Your task to perform on an android device: What's on my calendar today? Image 0: 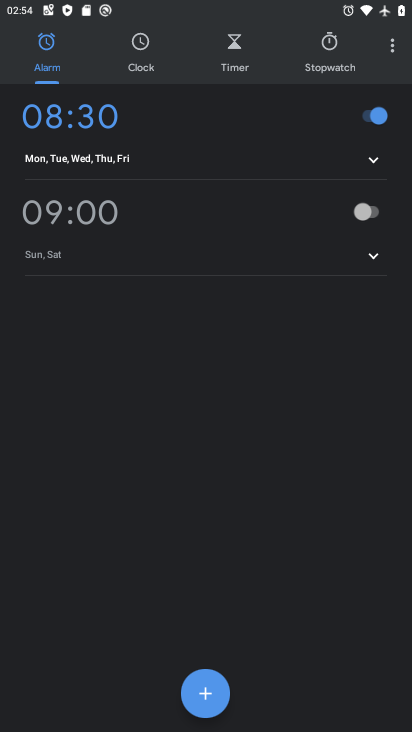
Step 0: press home button
Your task to perform on an android device: What's on my calendar today? Image 1: 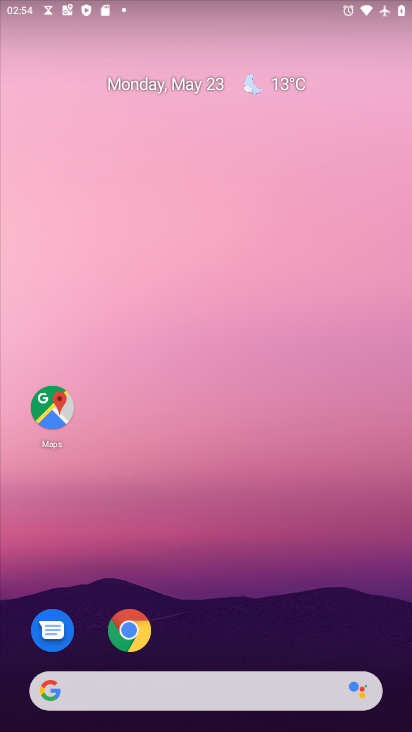
Step 1: click (160, 85)
Your task to perform on an android device: What's on my calendar today? Image 2: 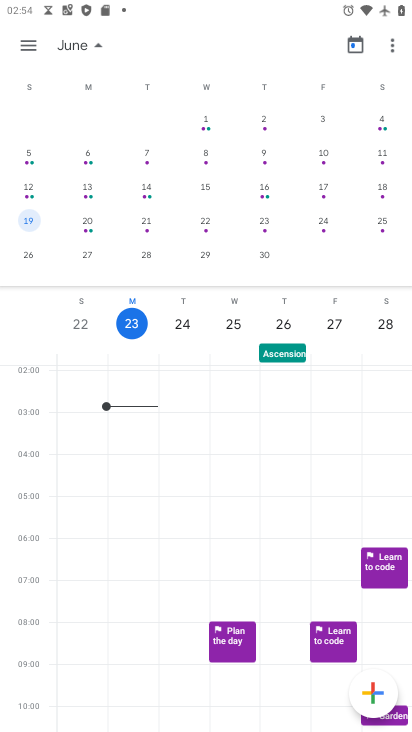
Step 2: task complete